Your task to perform on an android device: check data usage Image 0: 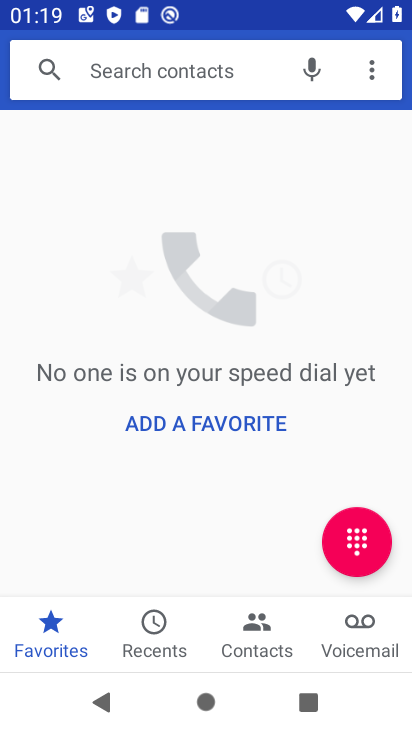
Step 0: press home button
Your task to perform on an android device: check data usage Image 1: 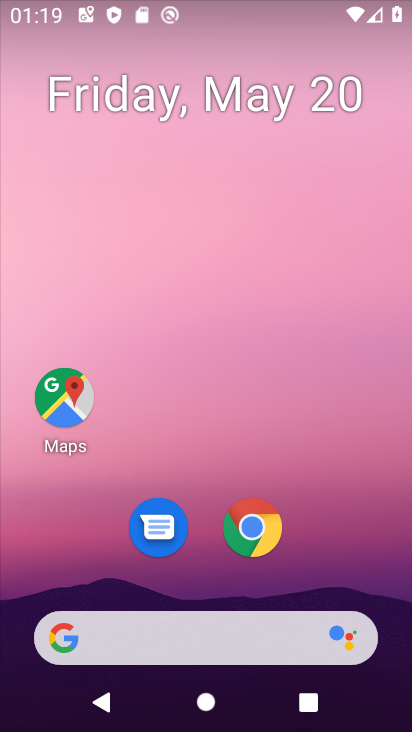
Step 1: drag from (187, 649) to (353, 100)
Your task to perform on an android device: check data usage Image 2: 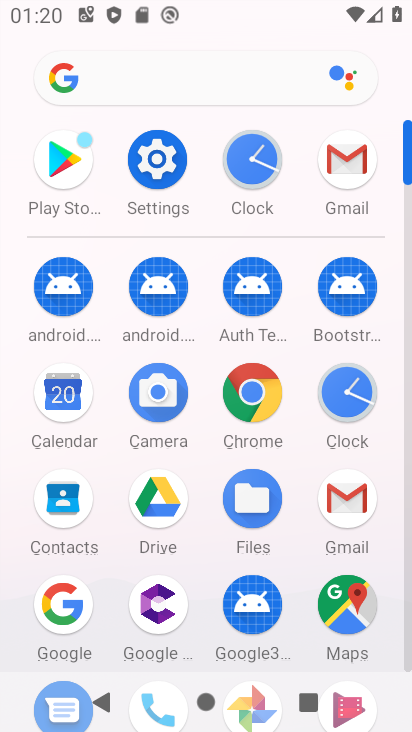
Step 2: click (159, 158)
Your task to perform on an android device: check data usage Image 3: 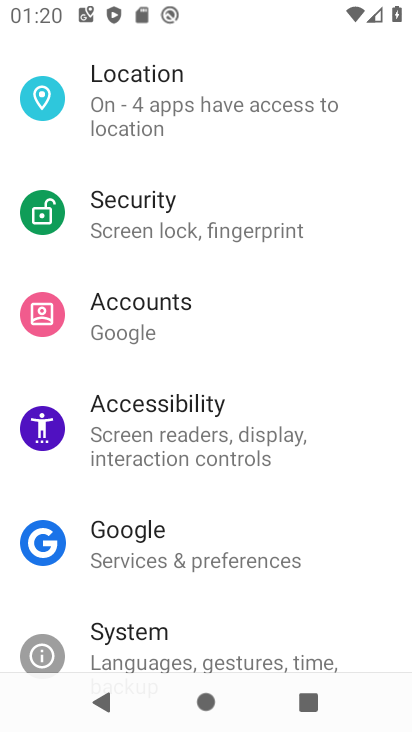
Step 3: drag from (316, 161) to (222, 528)
Your task to perform on an android device: check data usage Image 4: 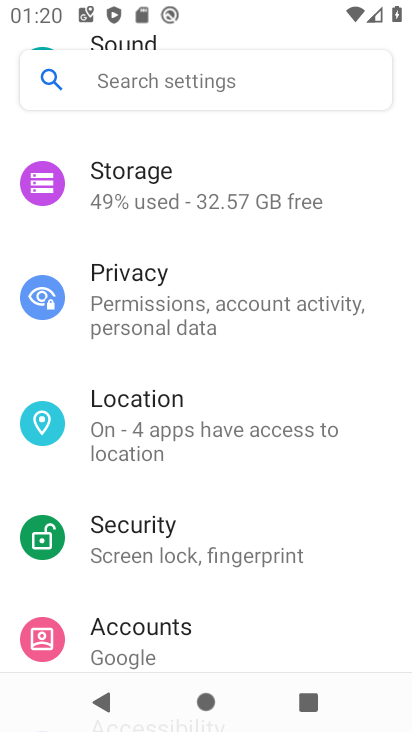
Step 4: drag from (301, 144) to (251, 551)
Your task to perform on an android device: check data usage Image 5: 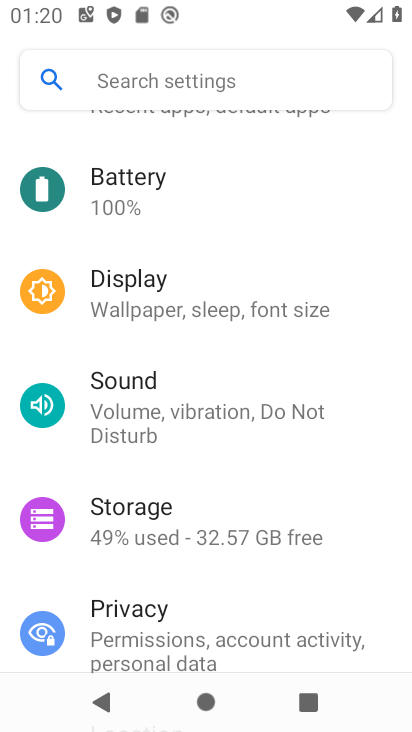
Step 5: drag from (316, 167) to (240, 567)
Your task to perform on an android device: check data usage Image 6: 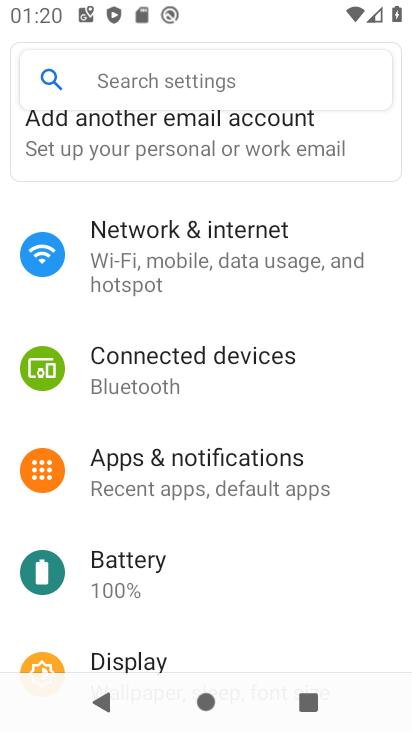
Step 6: click (223, 256)
Your task to perform on an android device: check data usage Image 7: 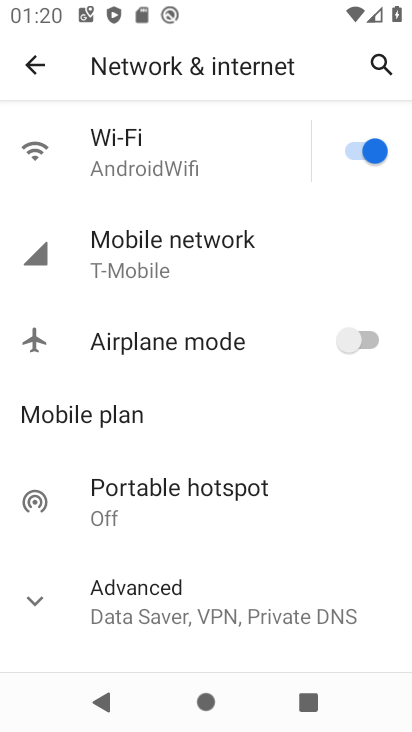
Step 7: click (144, 175)
Your task to perform on an android device: check data usage Image 8: 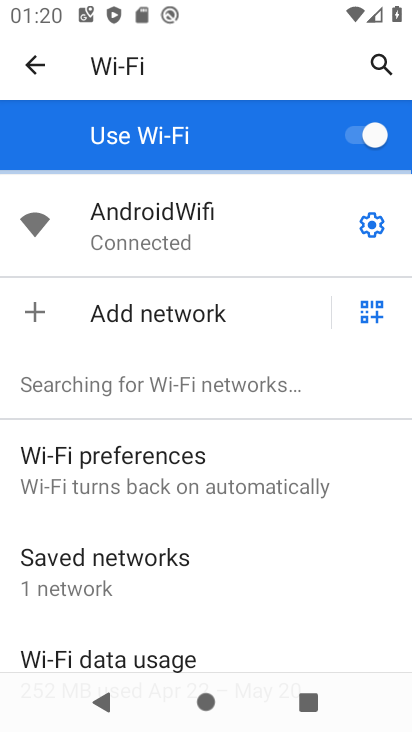
Step 8: drag from (244, 622) to (362, 162)
Your task to perform on an android device: check data usage Image 9: 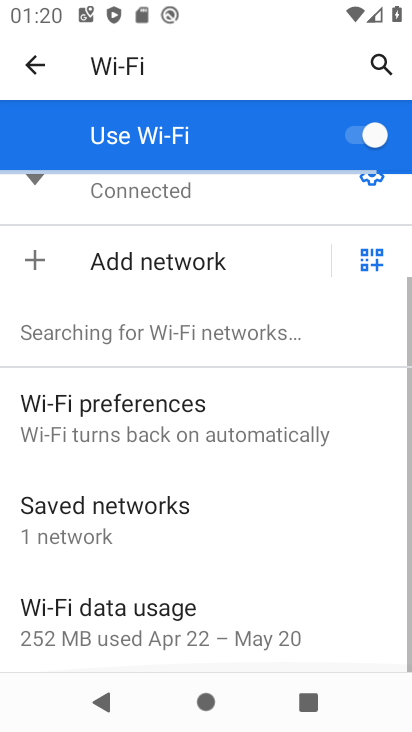
Step 9: click (168, 613)
Your task to perform on an android device: check data usage Image 10: 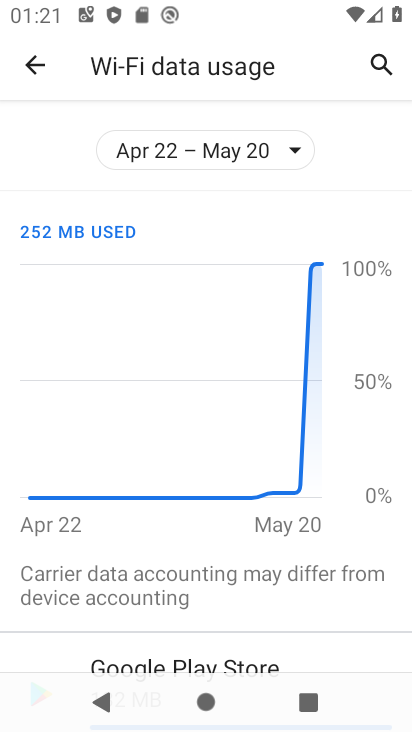
Step 10: task complete